Your task to perform on an android device: Open the phone app and click the voicemail tab. Image 0: 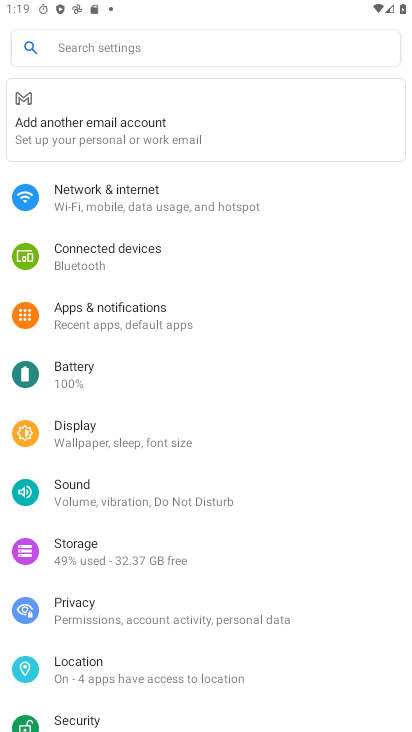
Step 0: press home button
Your task to perform on an android device: Open the phone app and click the voicemail tab. Image 1: 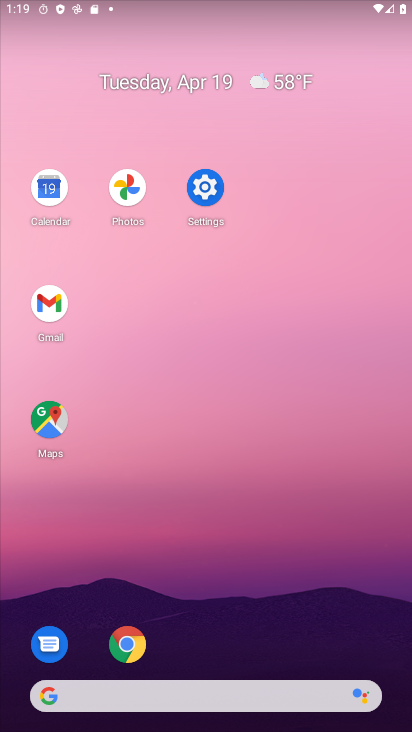
Step 1: drag from (225, 621) to (245, 230)
Your task to perform on an android device: Open the phone app and click the voicemail tab. Image 2: 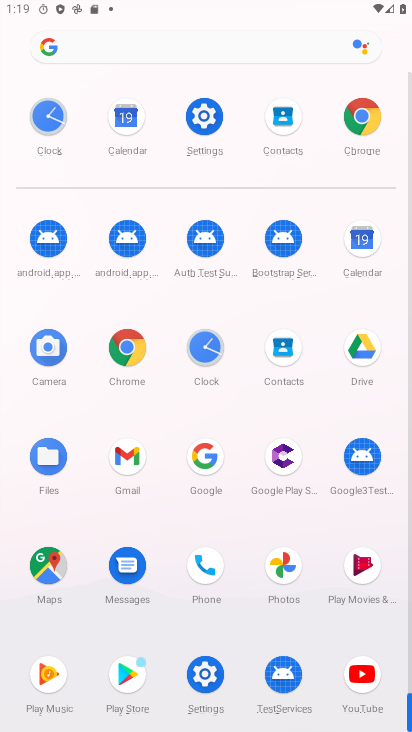
Step 2: click (202, 565)
Your task to perform on an android device: Open the phone app and click the voicemail tab. Image 3: 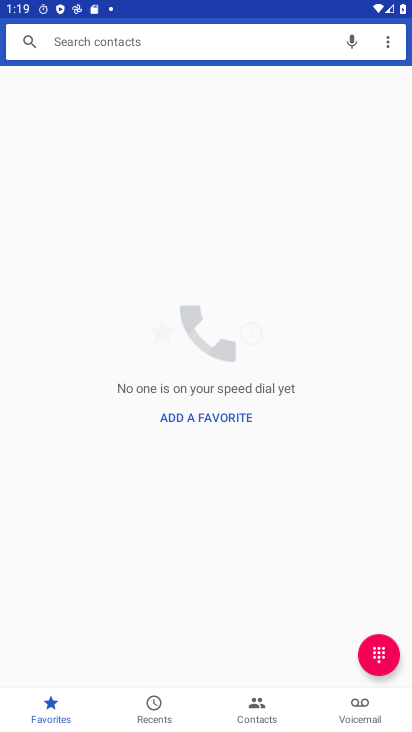
Step 3: click (348, 707)
Your task to perform on an android device: Open the phone app and click the voicemail tab. Image 4: 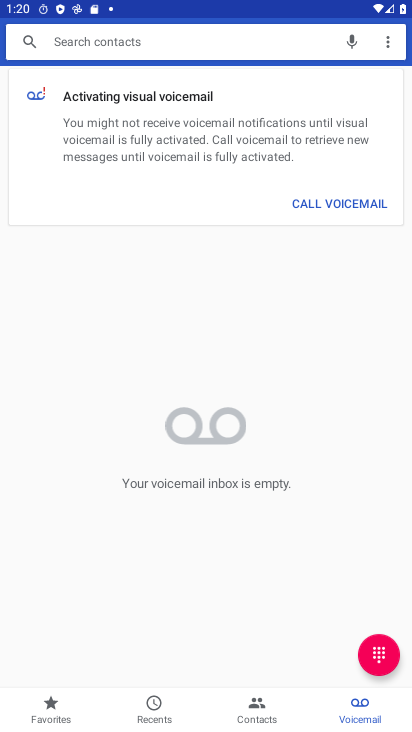
Step 4: task complete